Your task to perform on an android device: toggle javascript in the chrome app Image 0: 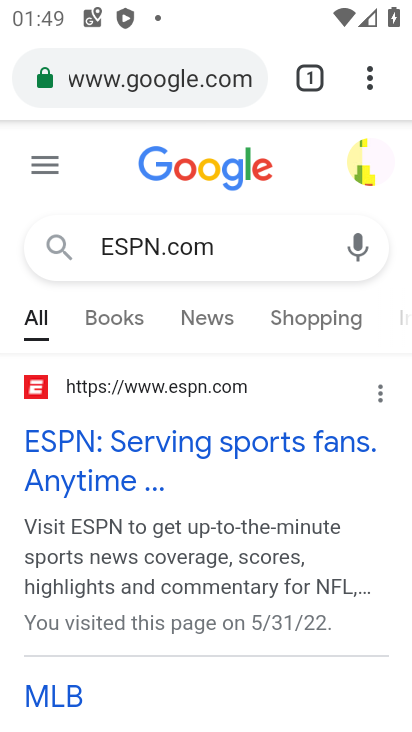
Step 0: press home button
Your task to perform on an android device: toggle javascript in the chrome app Image 1: 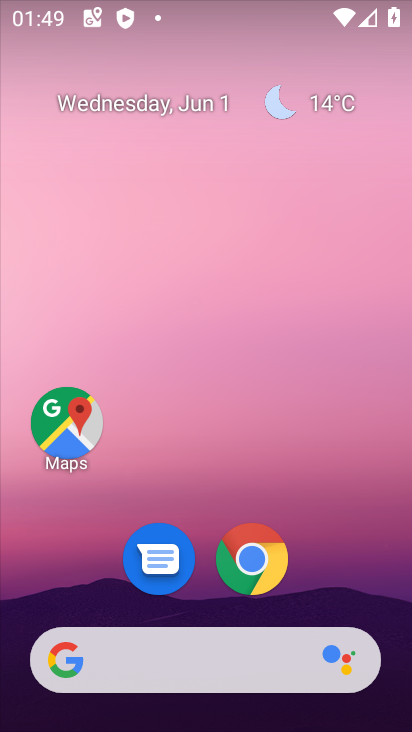
Step 1: click (252, 555)
Your task to perform on an android device: toggle javascript in the chrome app Image 2: 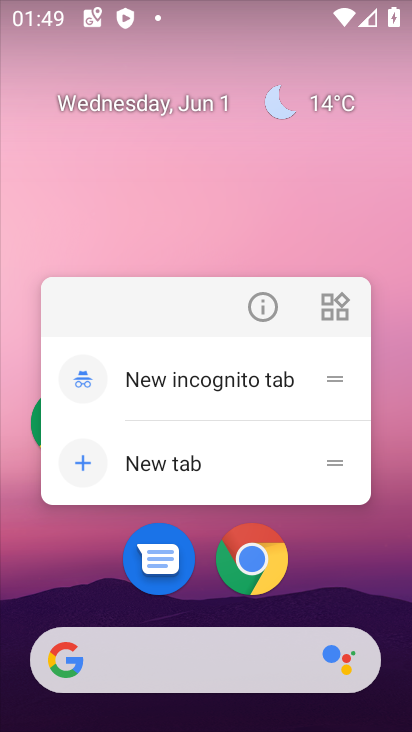
Step 2: click (203, 515)
Your task to perform on an android device: toggle javascript in the chrome app Image 3: 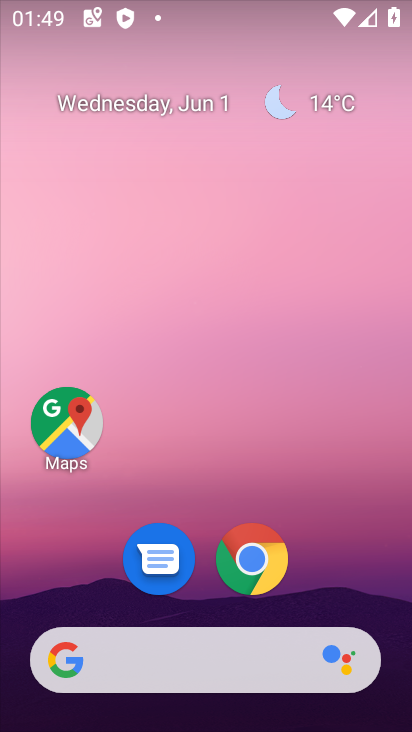
Step 3: click (250, 561)
Your task to perform on an android device: toggle javascript in the chrome app Image 4: 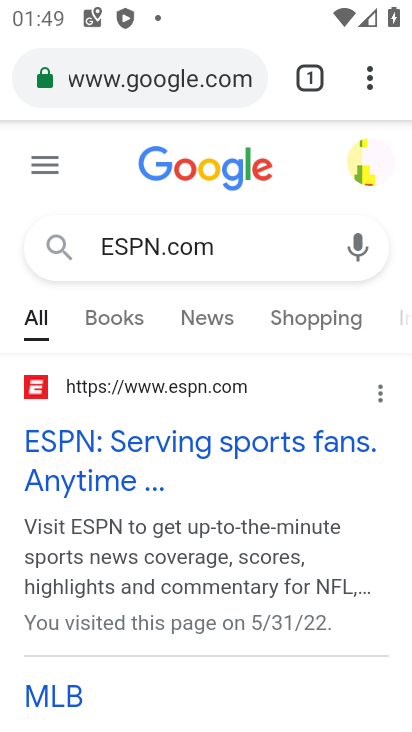
Step 4: click (370, 69)
Your task to perform on an android device: toggle javascript in the chrome app Image 5: 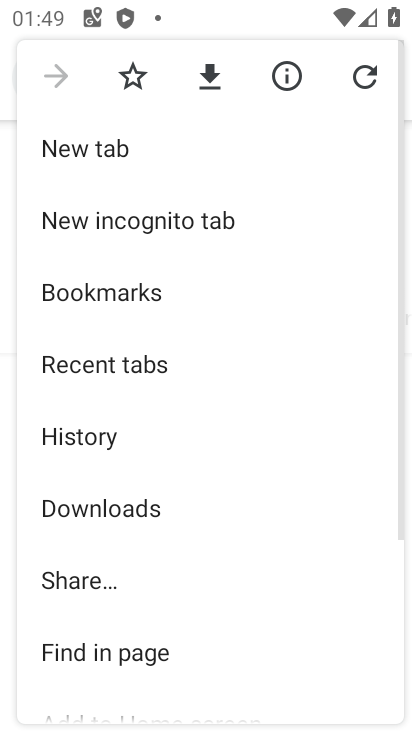
Step 5: drag from (254, 653) to (255, 254)
Your task to perform on an android device: toggle javascript in the chrome app Image 6: 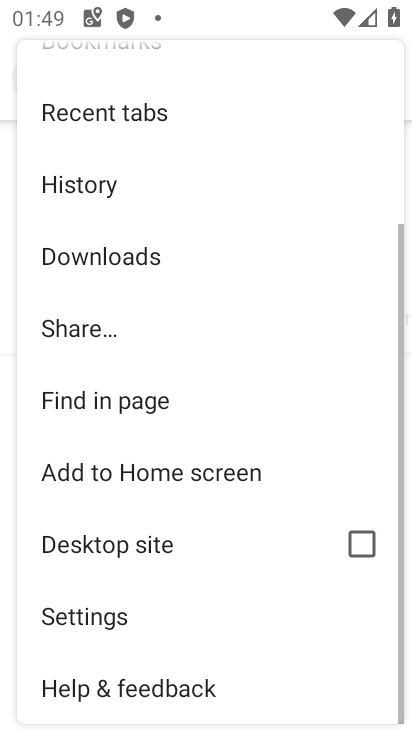
Step 6: drag from (275, 662) to (257, 338)
Your task to perform on an android device: toggle javascript in the chrome app Image 7: 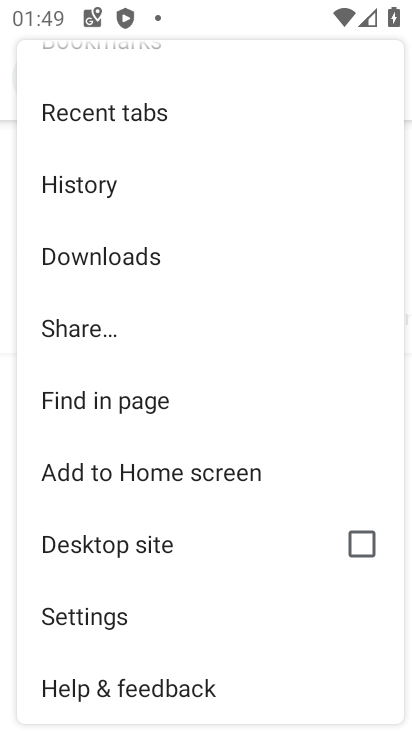
Step 7: click (72, 620)
Your task to perform on an android device: toggle javascript in the chrome app Image 8: 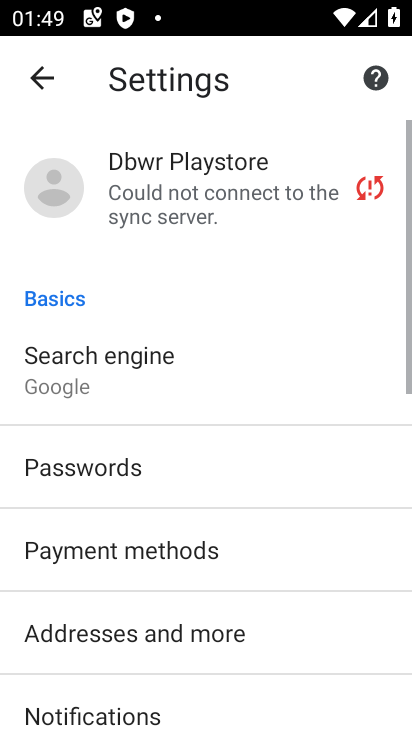
Step 8: drag from (275, 693) to (229, 216)
Your task to perform on an android device: toggle javascript in the chrome app Image 9: 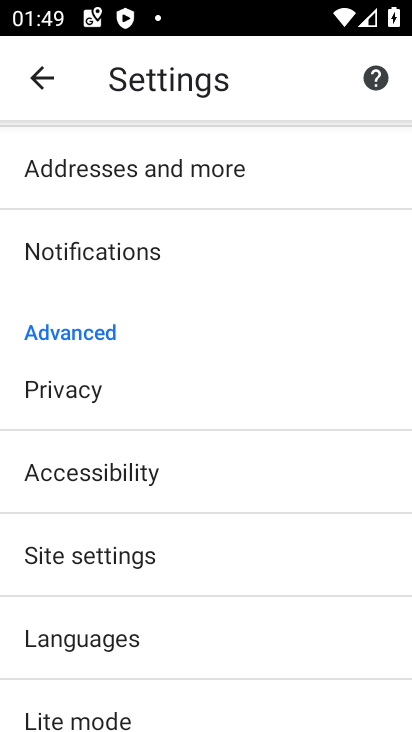
Step 9: drag from (286, 660) to (283, 317)
Your task to perform on an android device: toggle javascript in the chrome app Image 10: 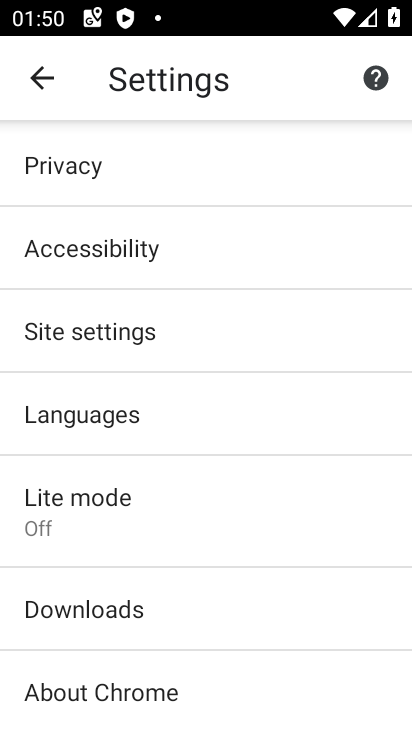
Step 10: drag from (241, 679) to (236, 335)
Your task to perform on an android device: toggle javascript in the chrome app Image 11: 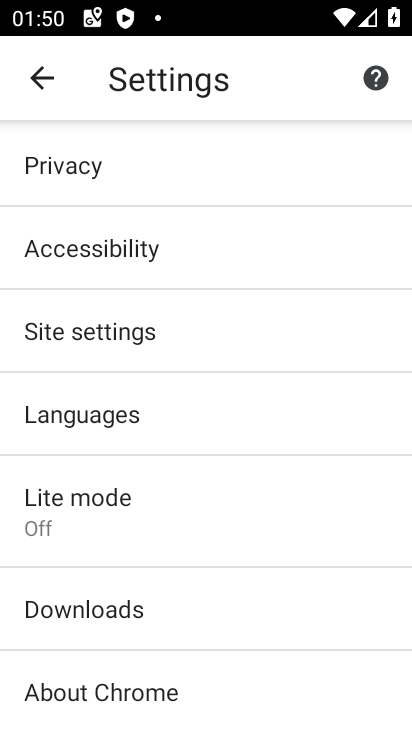
Step 11: click (36, 338)
Your task to perform on an android device: toggle javascript in the chrome app Image 12: 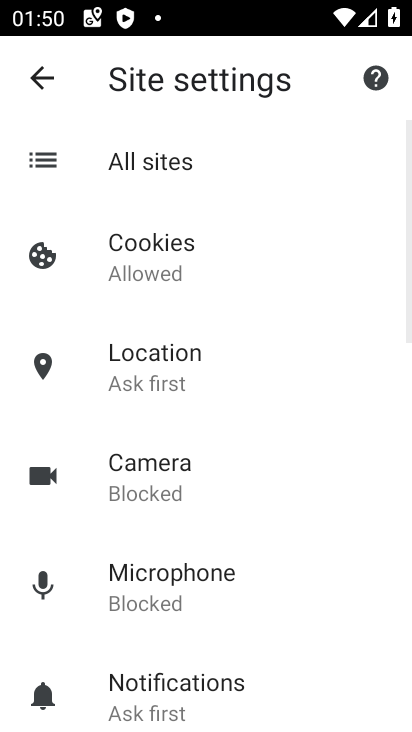
Step 12: drag from (333, 475) to (323, 265)
Your task to perform on an android device: toggle javascript in the chrome app Image 13: 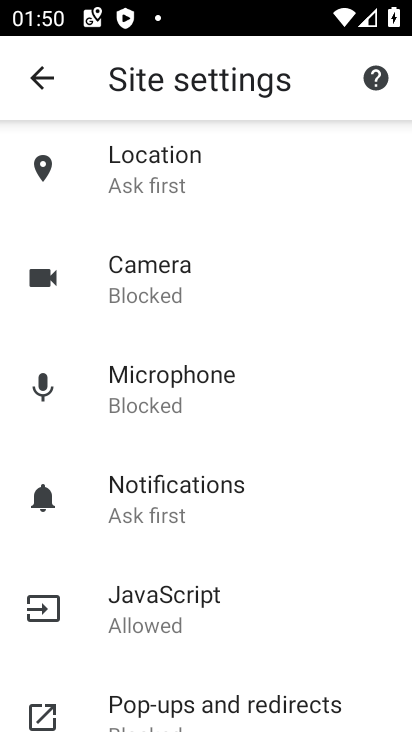
Step 13: click (160, 610)
Your task to perform on an android device: toggle javascript in the chrome app Image 14: 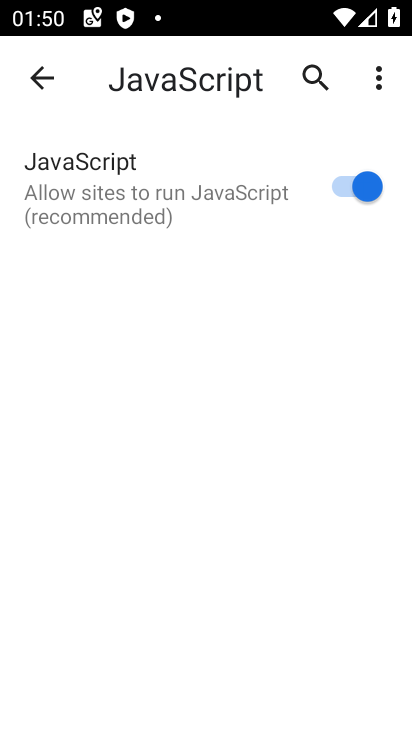
Step 14: click (349, 192)
Your task to perform on an android device: toggle javascript in the chrome app Image 15: 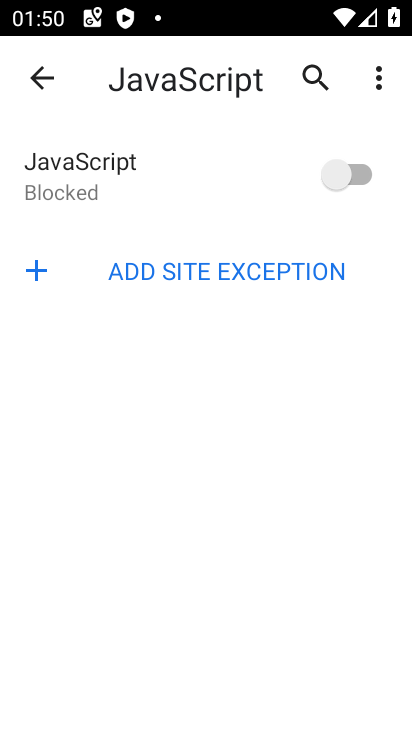
Step 15: task complete